Your task to perform on an android device: open app "Speedtest by Ookla" (install if not already installed) Image 0: 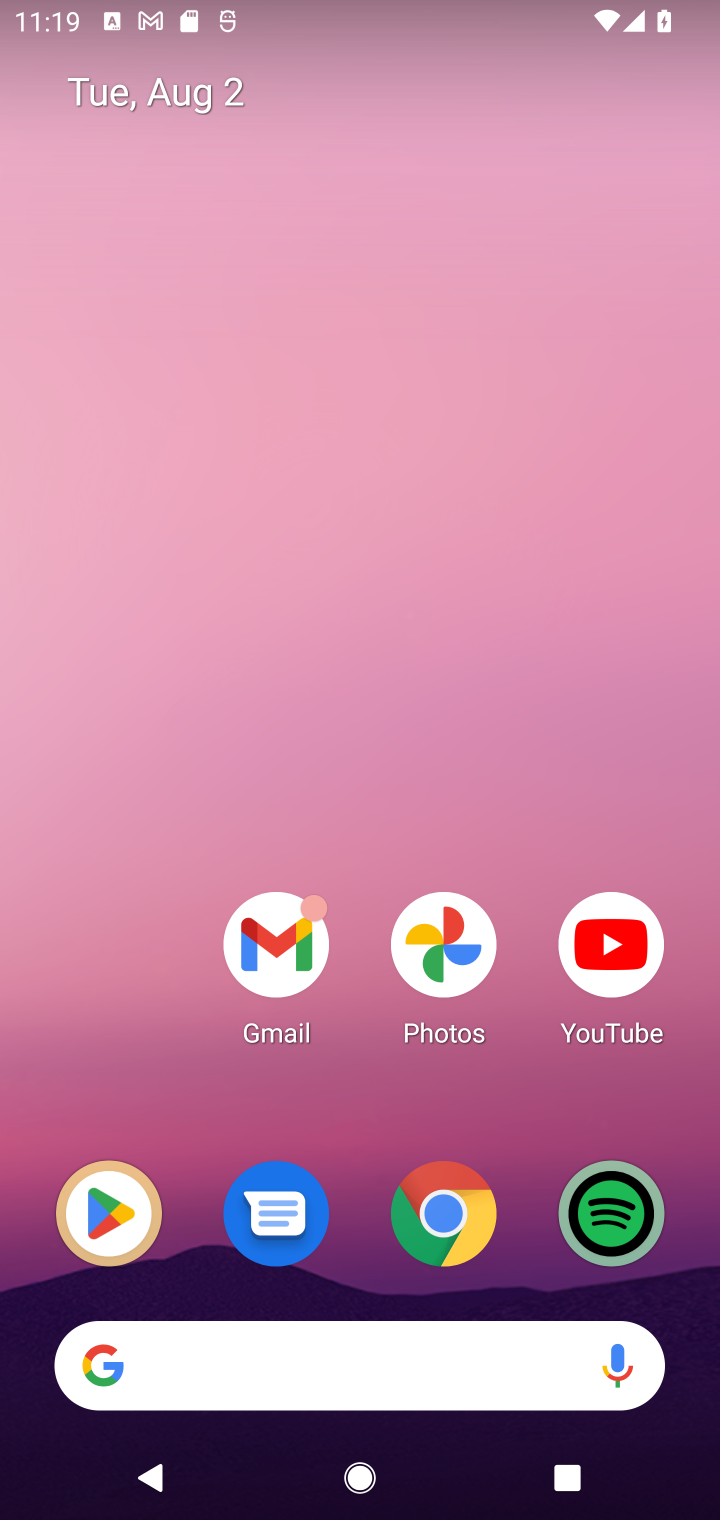
Step 0: click (85, 1204)
Your task to perform on an android device: open app "Speedtest by Ookla" (install if not already installed) Image 1: 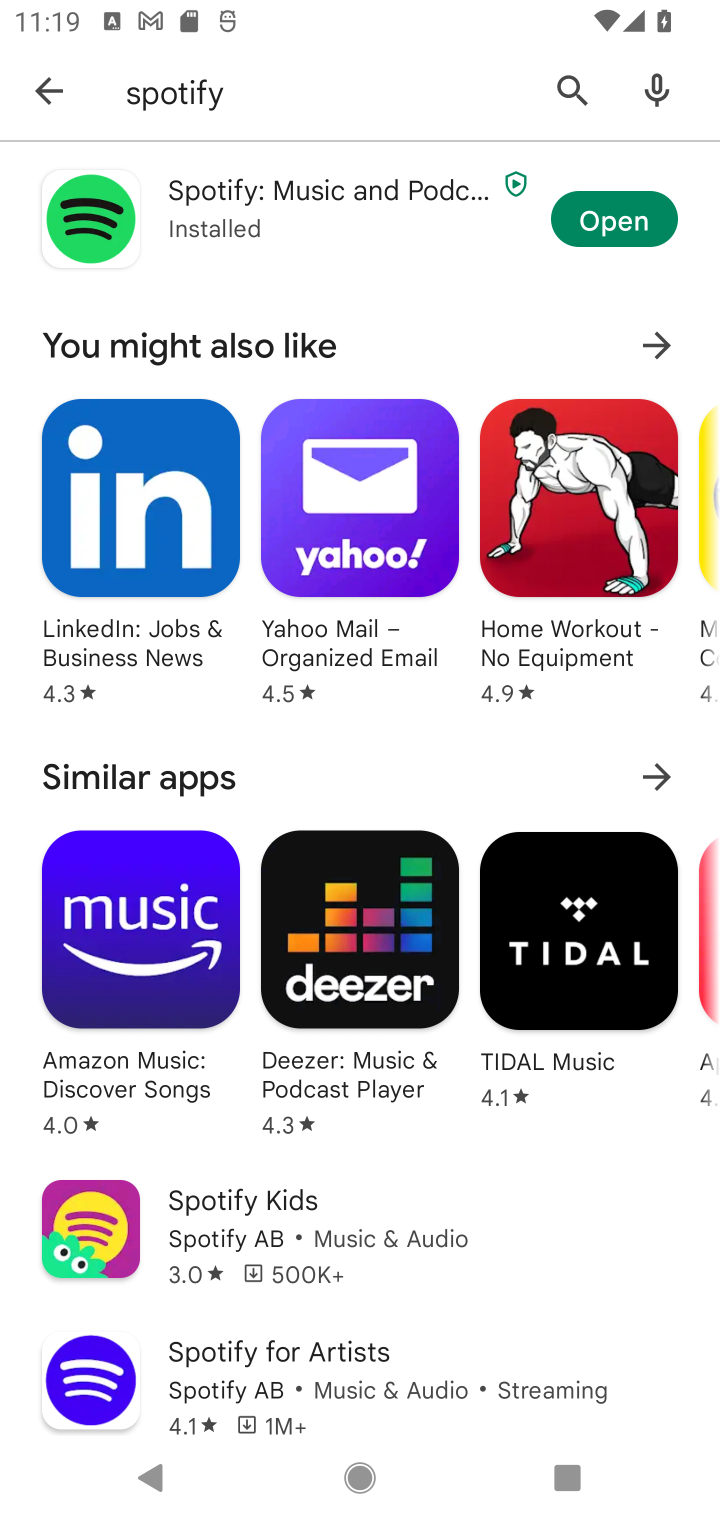
Step 1: click (45, 95)
Your task to perform on an android device: open app "Speedtest by Ookla" (install if not already installed) Image 2: 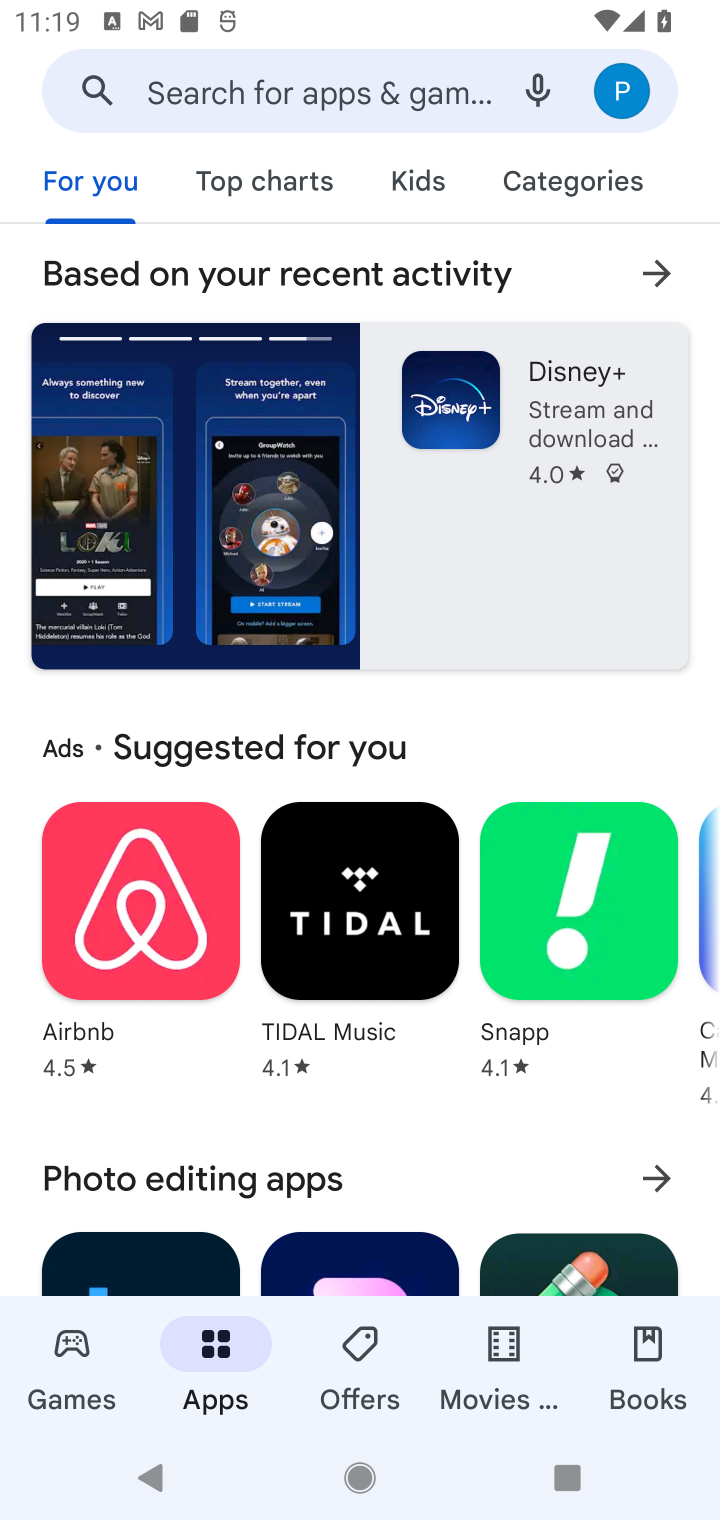
Step 2: click (238, 102)
Your task to perform on an android device: open app "Speedtest by Ookla" (install if not already installed) Image 3: 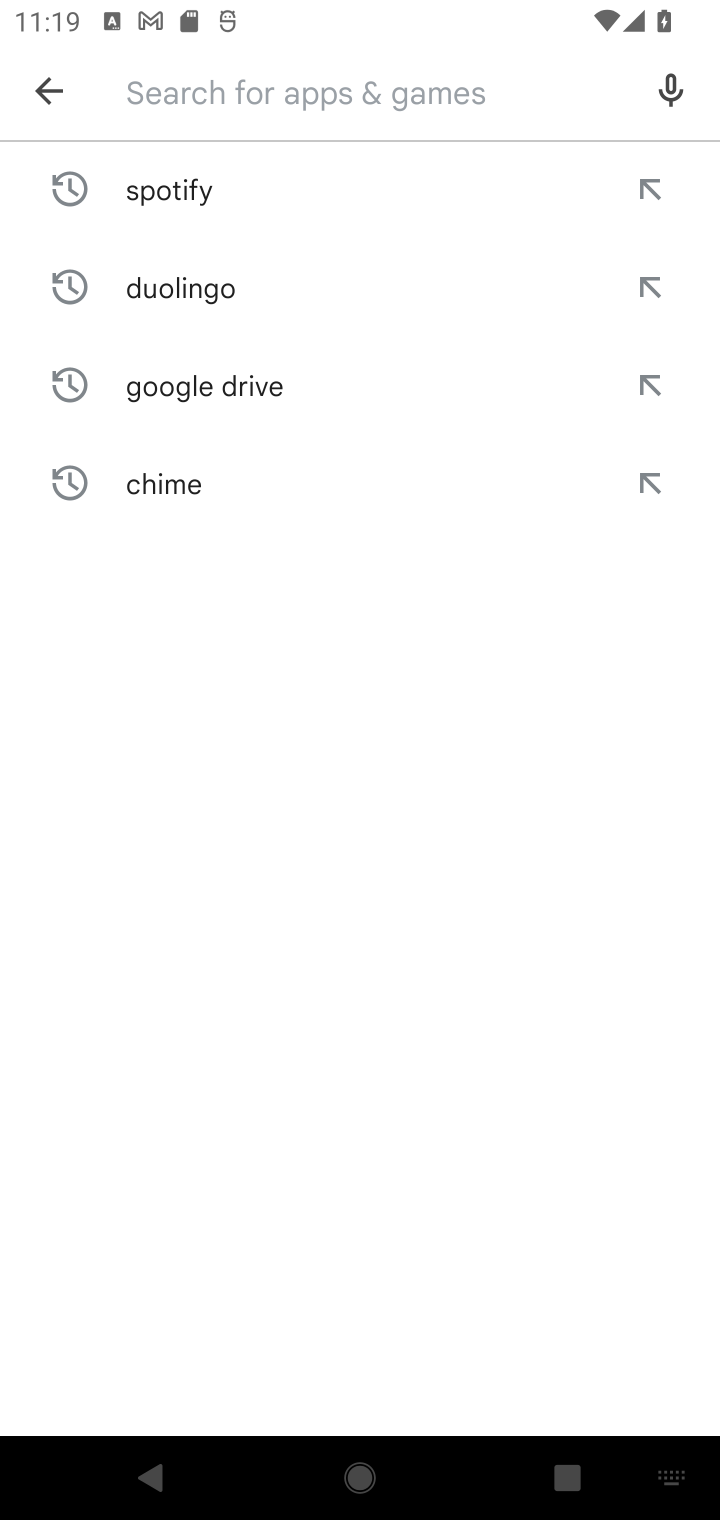
Step 3: type "Speedtest by Ookla"
Your task to perform on an android device: open app "Speedtest by Ookla" (install if not already installed) Image 4: 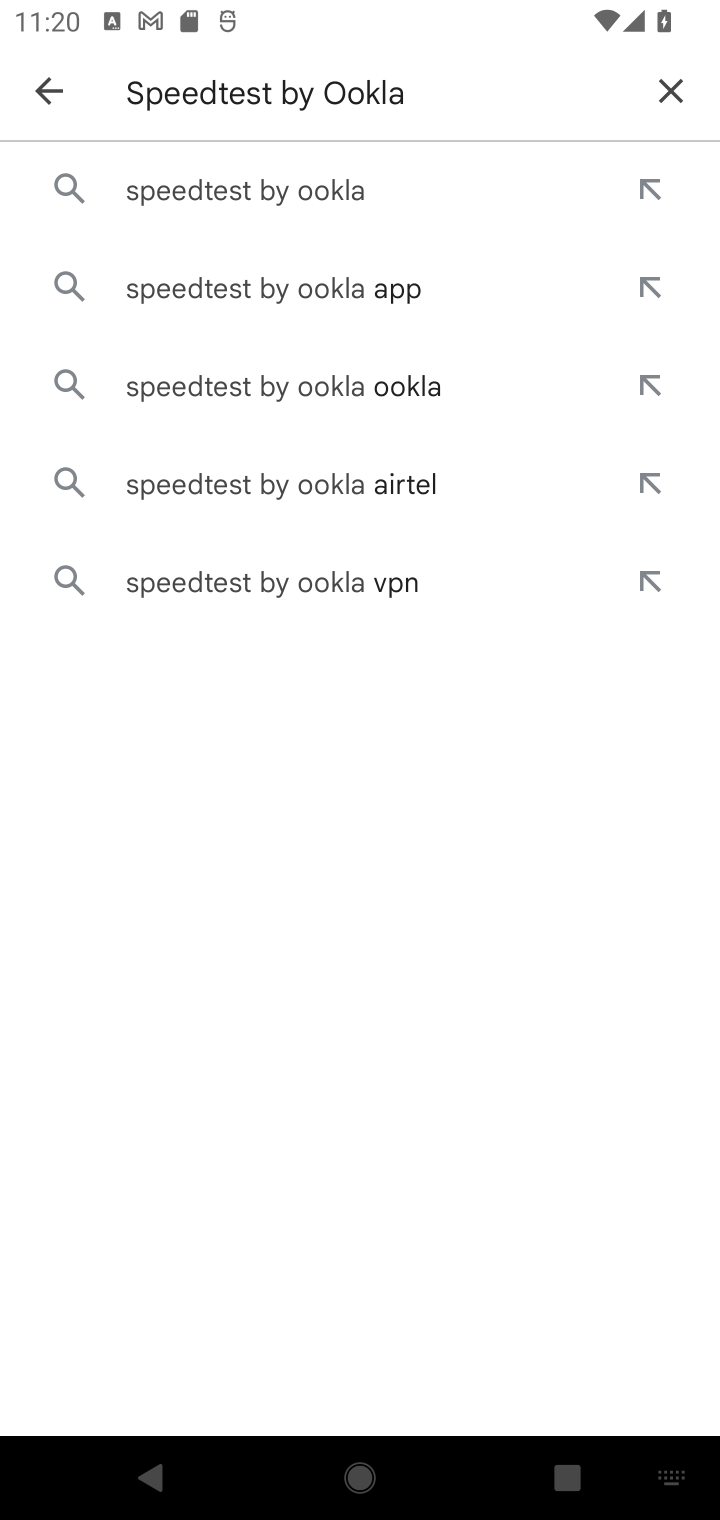
Step 4: click (253, 176)
Your task to perform on an android device: open app "Speedtest by Ookla" (install if not already installed) Image 5: 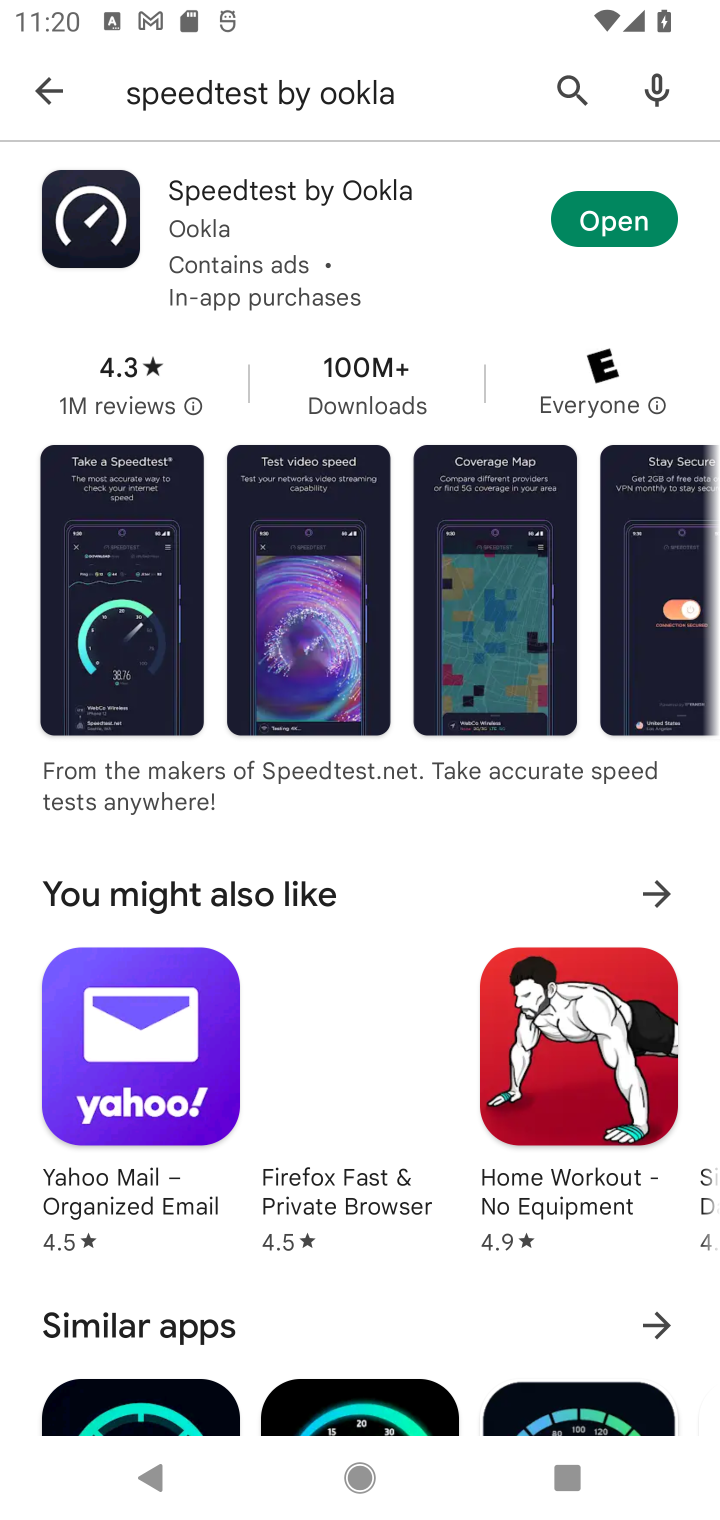
Step 5: click (602, 226)
Your task to perform on an android device: open app "Speedtest by Ookla" (install if not already installed) Image 6: 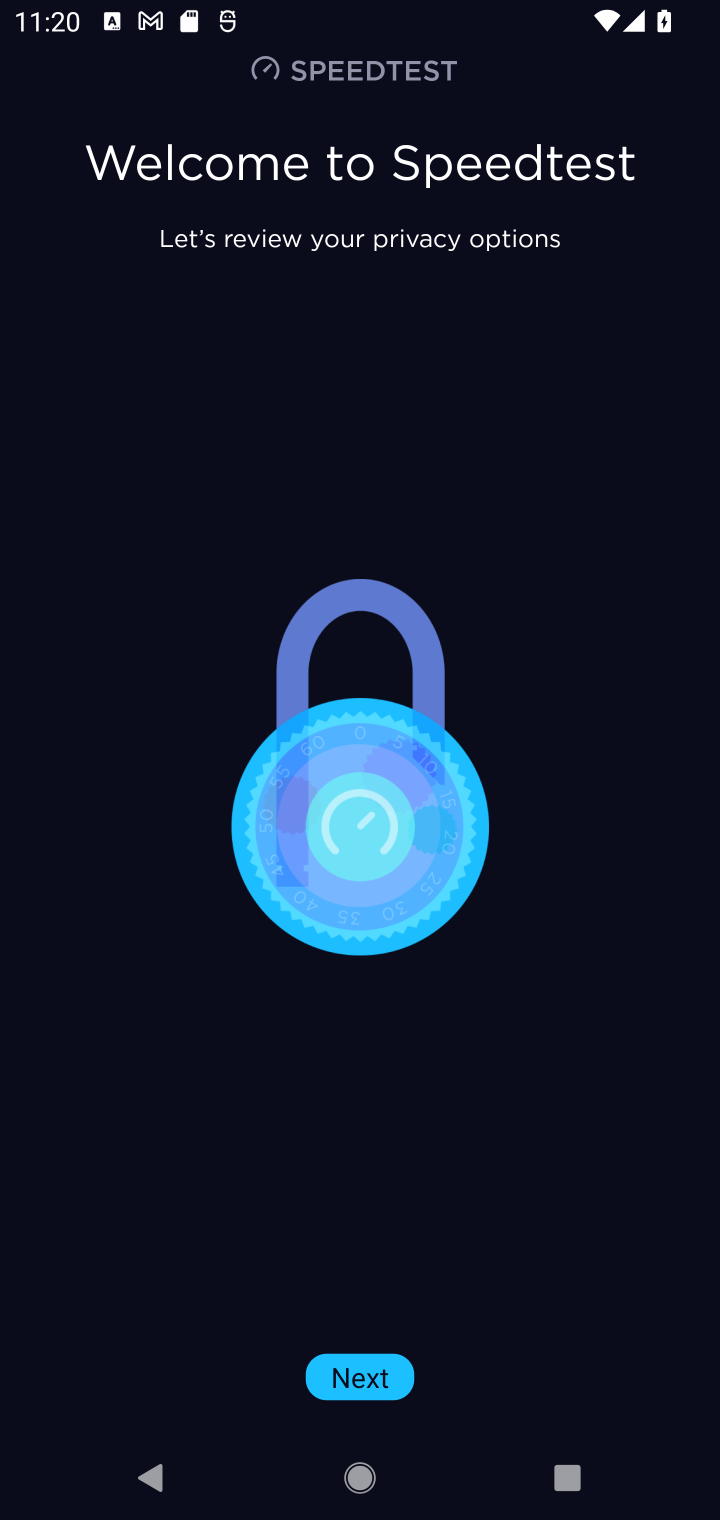
Step 6: task complete